Your task to perform on an android device: toggle pop-ups in chrome Image 0: 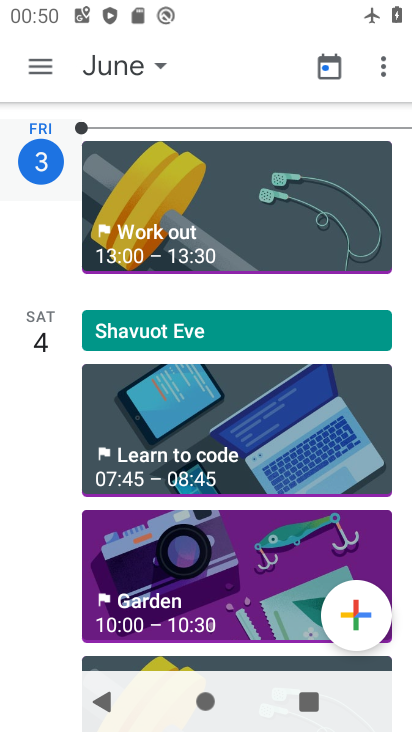
Step 0: press home button
Your task to perform on an android device: toggle pop-ups in chrome Image 1: 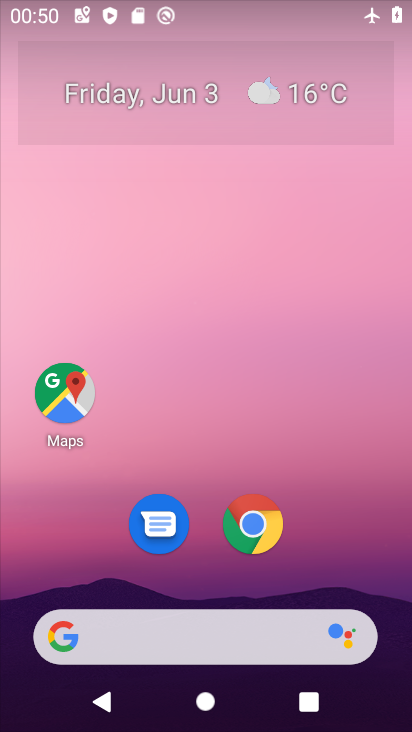
Step 1: click (261, 511)
Your task to perform on an android device: toggle pop-ups in chrome Image 2: 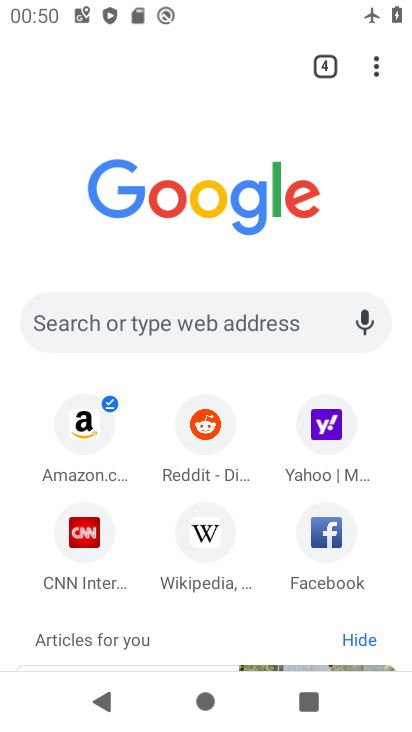
Step 2: click (374, 67)
Your task to perform on an android device: toggle pop-ups in chrome Image 3: 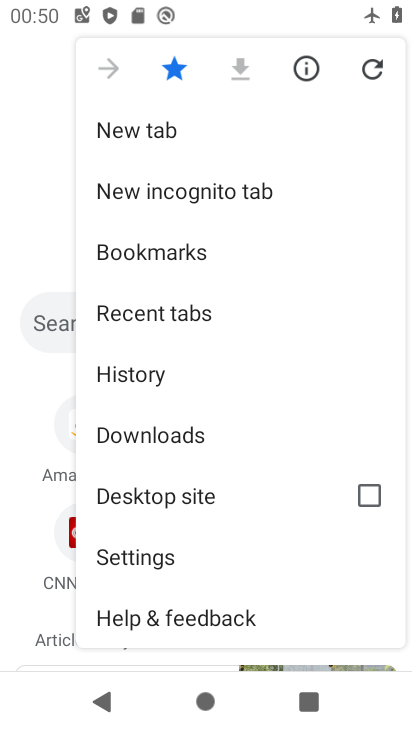
Step 3: click (187, 566)
Your task to perform on an android device: toggle pop-ups in chrome Image 4: 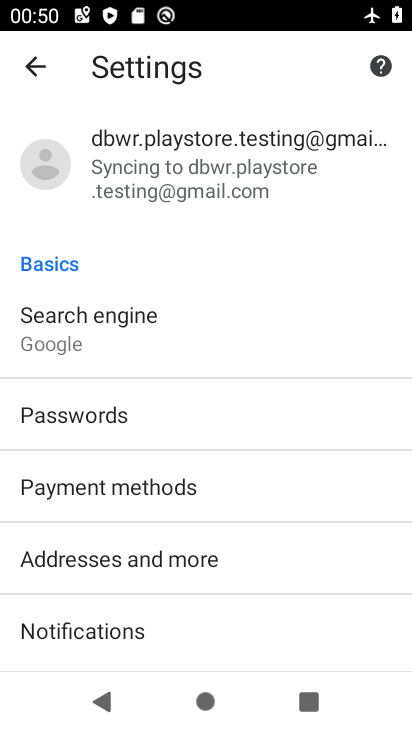
Step 4: drag from (259, 498) to (256, 103)
Your task to perform on an android device: toggle pop-ups in chrome Image 5: 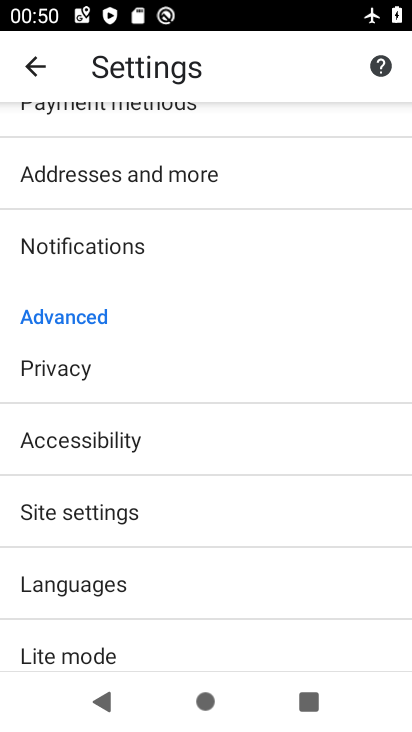
Step 5: click (158, 513)
Your task to perform on an android device: toggle pop-ups in chrome Image 6: 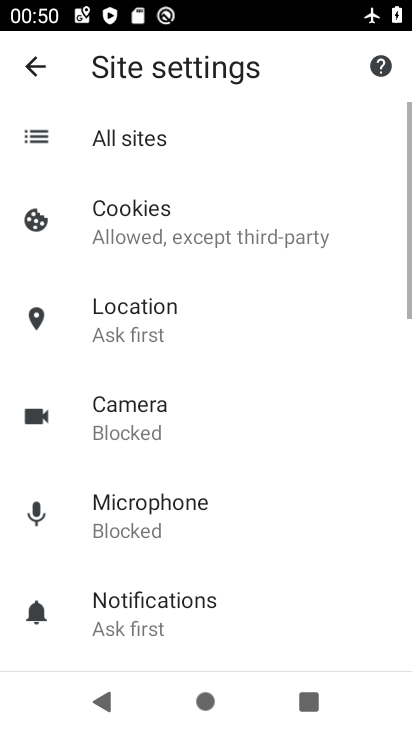
Step 6: drag from (259, 576) to (263, 235)
Your task to perform on an android device: toggle pop-ups in chrome Image 7: 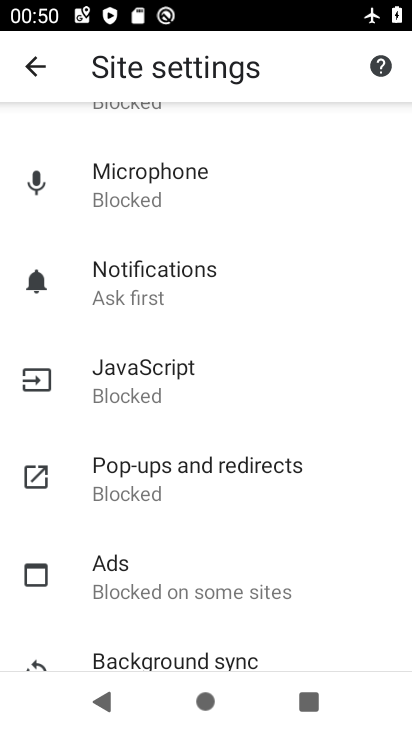
Step 7: click (234, 471)
Your task to perform on an android device: toggle pop-ups in chrome Image 8: 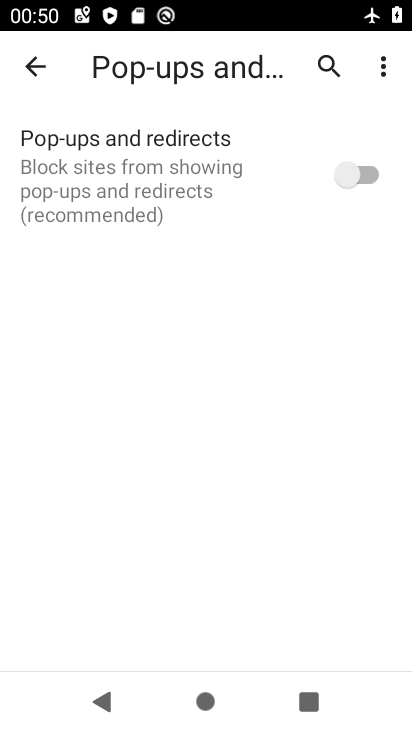
Step 8: click (360, 170)
Your task to perform on an android device: toggle pop-ups in chrome Image 9: 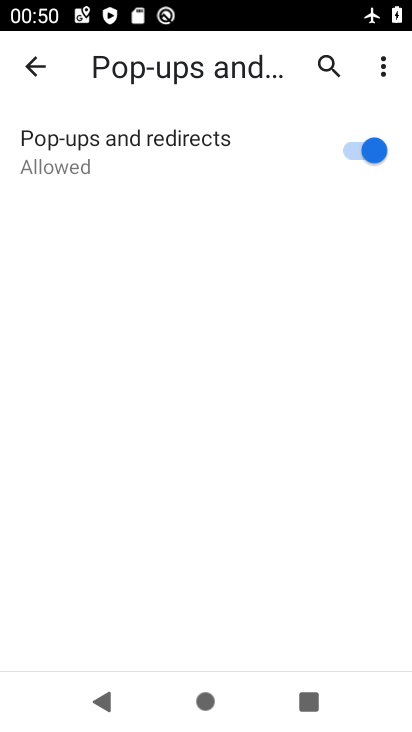
Step 9: task complete